Your task to perform on an android device: delete the emails in spam in the gmail app Image 0: 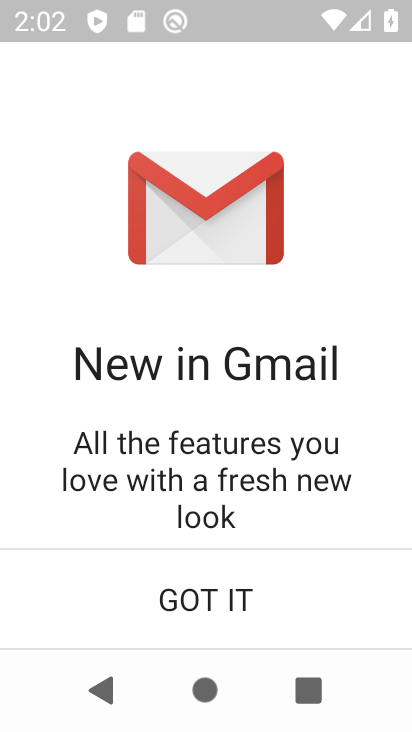
Step 0: click (284, 589)
Your task to perform on an android device: delete the emails in spam in the gmail app Image 1: 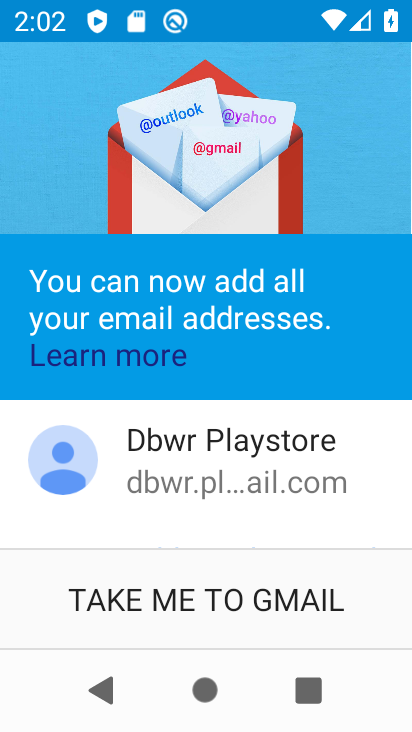
Step 1: click (204, 618)
Your task to perform on an android device: delete the emails in spam in the gmail app Image 2: 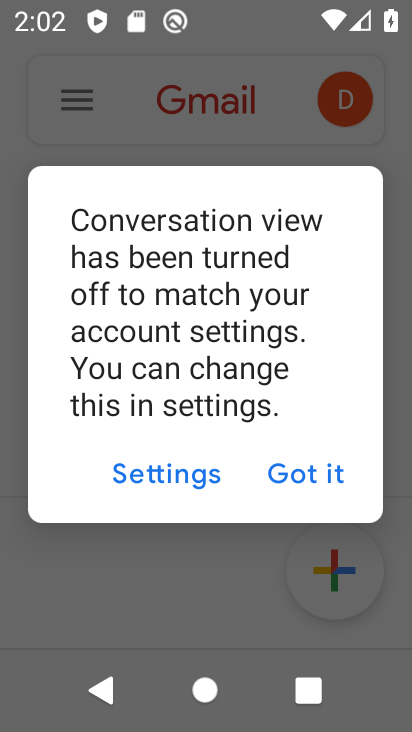
Step 2: click (276, 493)
Your task to perform on an android device: delete the emails in spam in the gmail app Image 3: 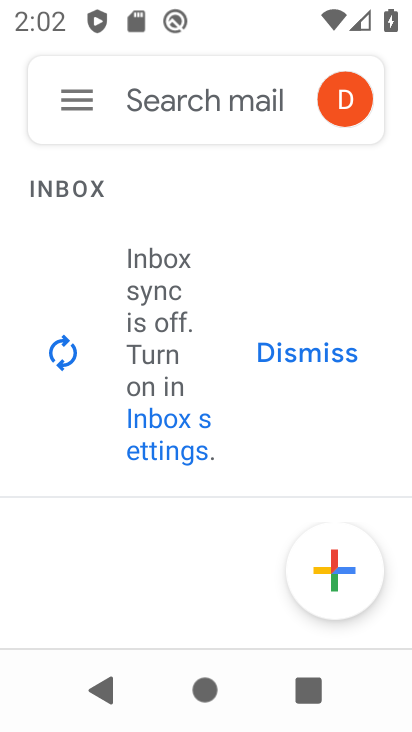
Step 3: task complete